Your task to perform on an android device: turn on the 24-hour format for clock Image 0: 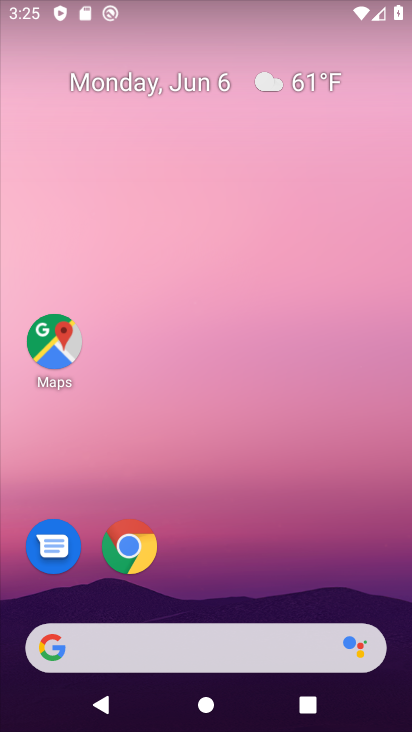
Step 0: press home button
Your task to perform on an android device: turn on the 24-hour format for clock Image 1: 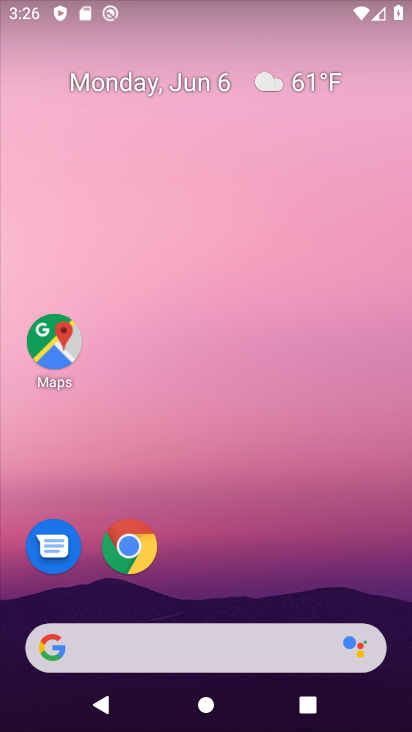
Step 1: drag from (231, 609) to (236, 242)
Your task to perform on an android device: turn on the 24-hour format for clock Image 2: 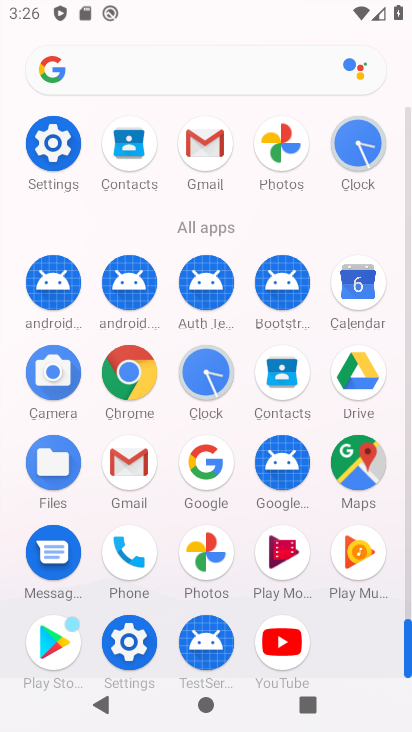
Step 2: click (50, 152)
Your task to perform on an android device: turn on the 24-hour format for clock Image 3: 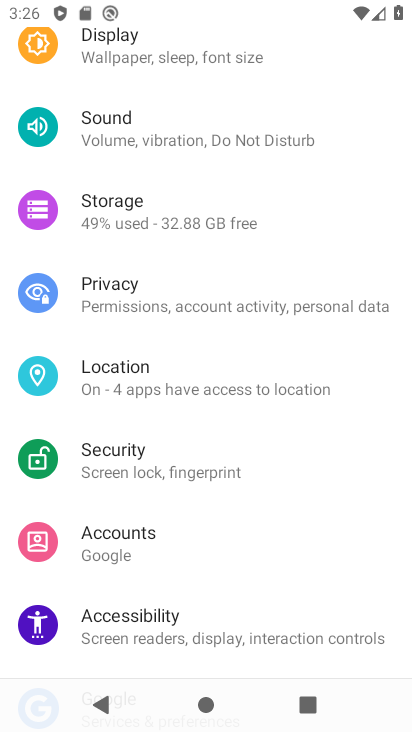
Step 3: drag from (221, 564) to (221, 134)
Your task to perform on an android device: turn on the 24-hour format for clock Image 4: 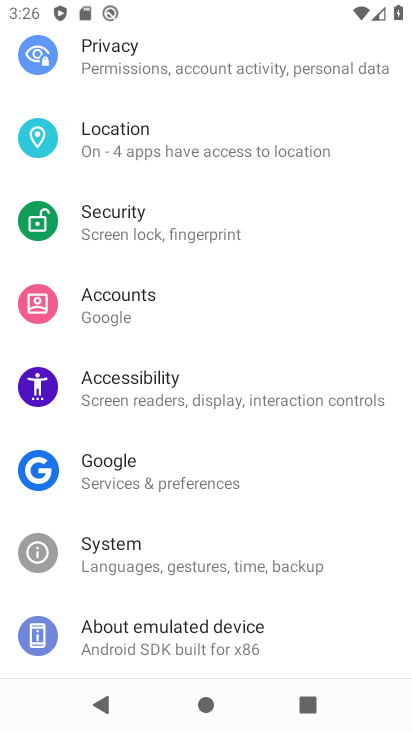
Step 4: click (155, 568)
Your task to perform on an android device: turn on the 24-hour format for clock Image 5: 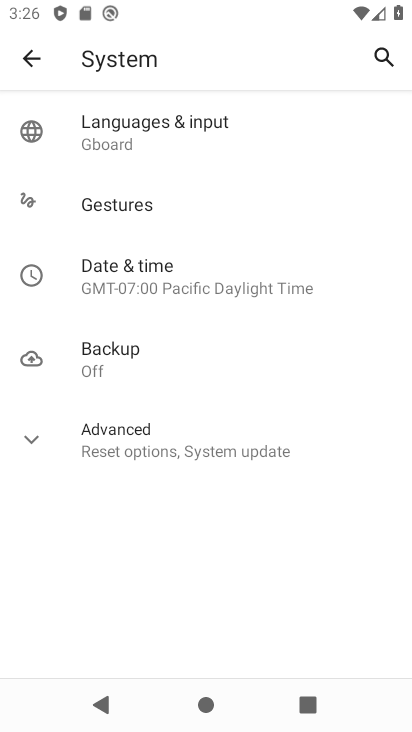
Step 5: click (131, 274)
Your task to perform on an android device: turn on the 24-hour format for clock Image 6: 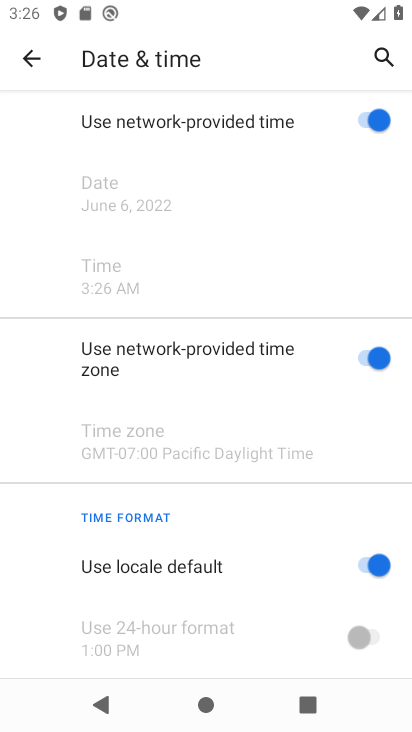
Step 6: click (362, 634)
Your task to perform on an android device: turn on the 24-hour format for clock Image 7: 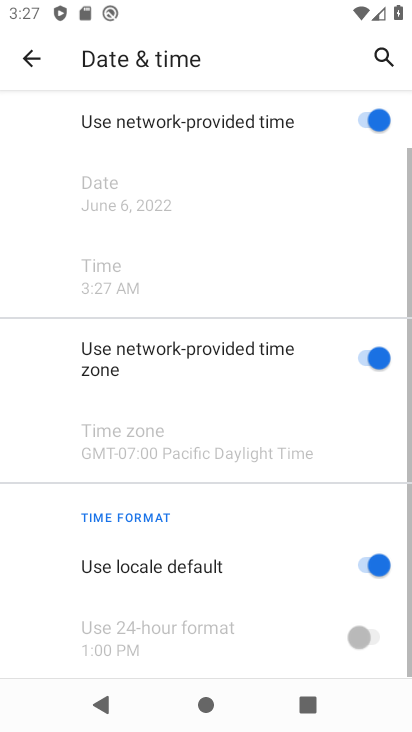
Step 7: click (382, 562)
Your task to perform on an android device: turn on the 24-hour format for clock Image 8: 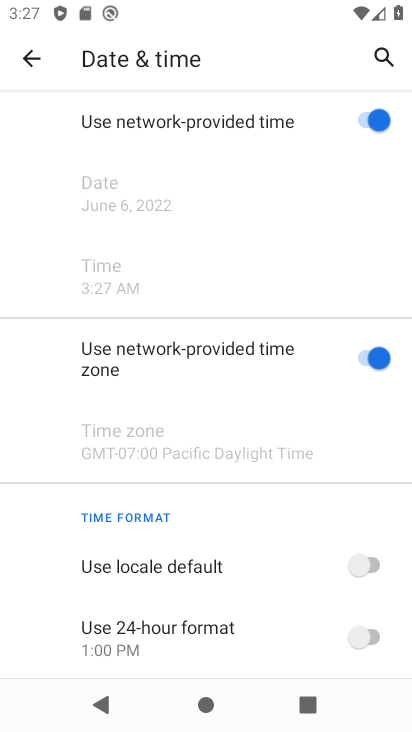
Step 8: click (367, 634)
Your task to perform on an android device: turn on the 24-hour format for clock Image 9: 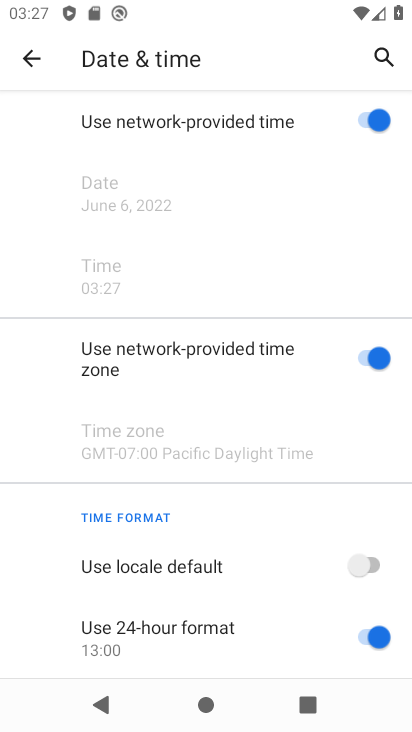
Step 9: task complete